Your task to perform on an android device: Open my contact list Image 0: 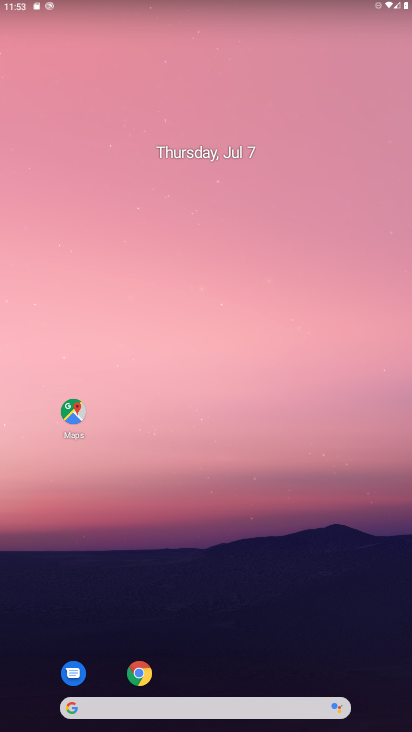
Step 0: drag from (398, 690) to (328, 119)
Your task to perform on an android device: Open my contact list Image 1: 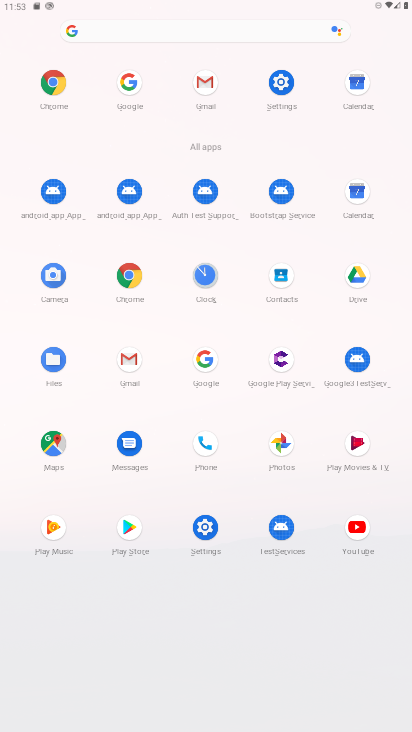
Step 1: click (290, 278)
Your task to perform on an android device: Open my contact list Image 2: 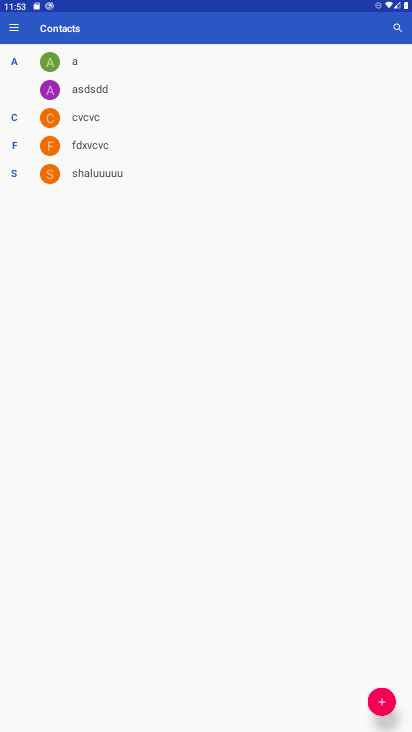
Step 2: click (395, 695)
Your task to perform on an android device: Open my contact list Image 3: 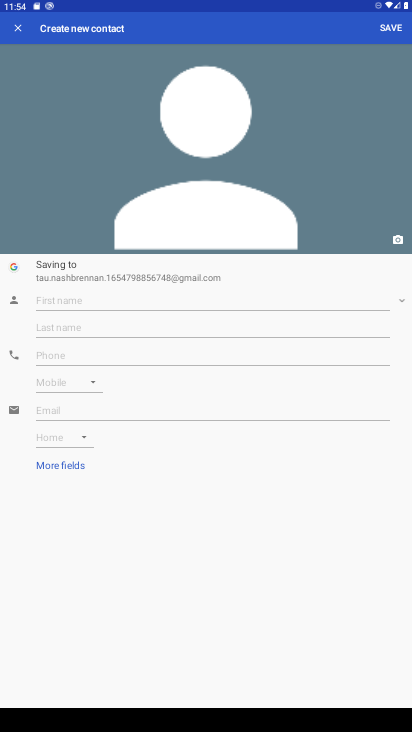
Step 3: task complete